Your task to perform on an android device: check out phone information Image 0: 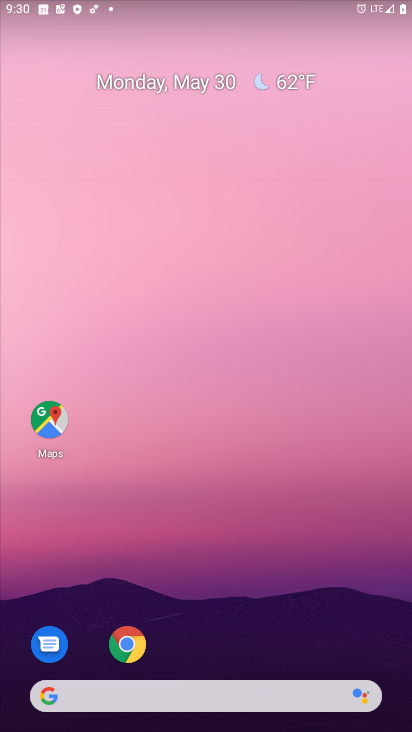
Step 0: drag from (379, 653) to (309, 144)
Your task to perform on an android device: check out phone information Image 1: 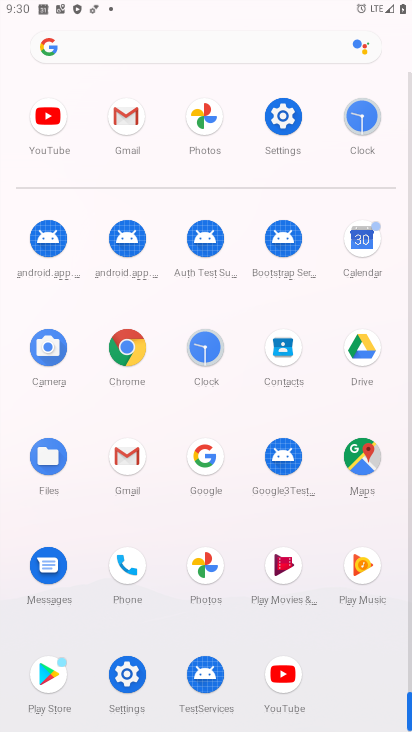
Step 1: click (128, 674)
Your task to perform on an android device: check out phone information Image 2: 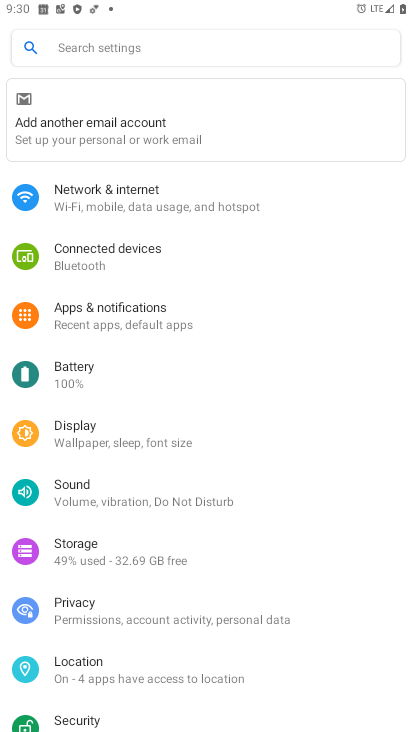
Step 2: drag from (296, 634) to (247, 103)
Your task to perform on an android device: check out phone information Image 3: 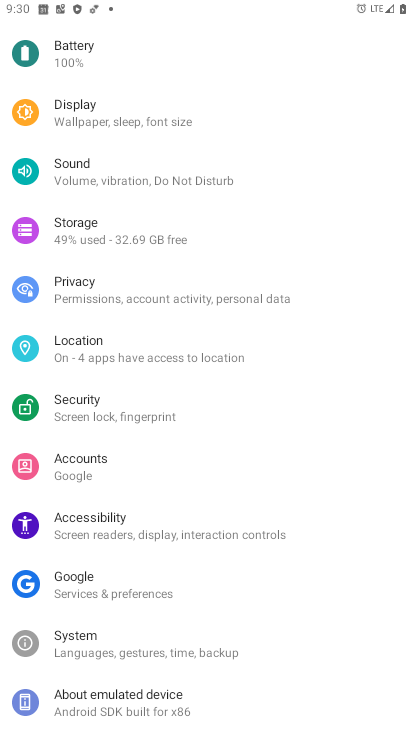
Step 3: click (98, 702)
Your task to perform on an android device: check out phone information Image 4: 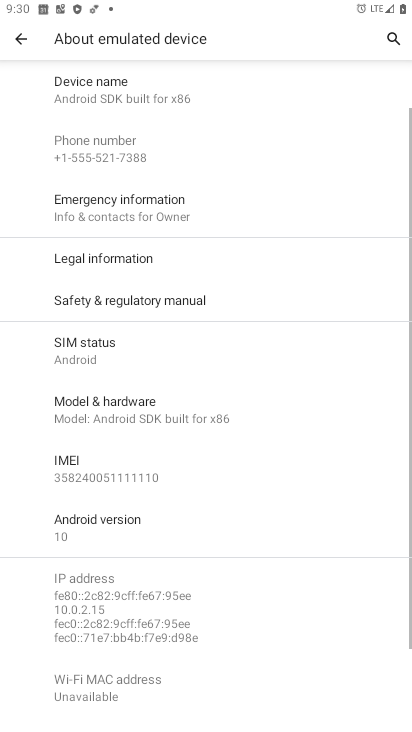
Step 4: task complete